Your task to perform on an android device: open app "Duolingo: language lessons" (install if not already installed) Image 0: 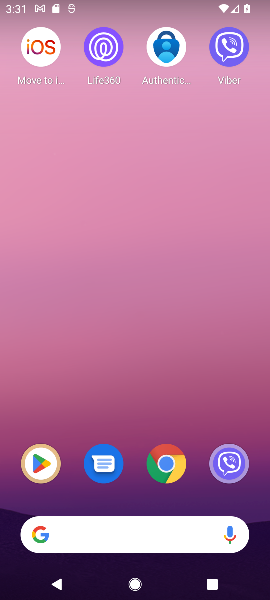
Step 0: press home button
Your task to perform on an android device: open app "Duolingo: language lessons" (install if not already installed) Image 1: 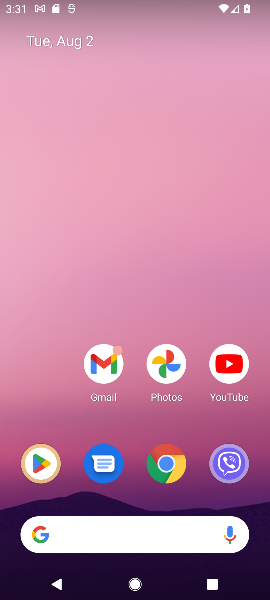
Step 1: click (40, 461)
Your task to perform on an android device: open app "Duolingo: language lessons" (install if not already installed) Image 2: 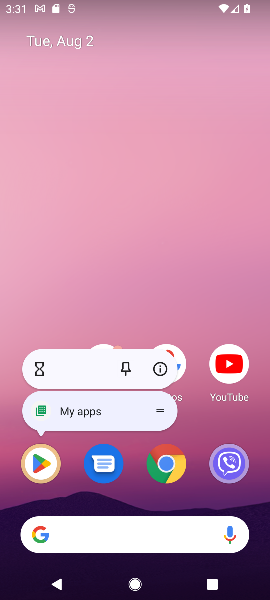
Step 2: click (40, 462)
Your task to perform on an android device: open app "Duolingo: language lessons" (install if not already installed) Image 3: 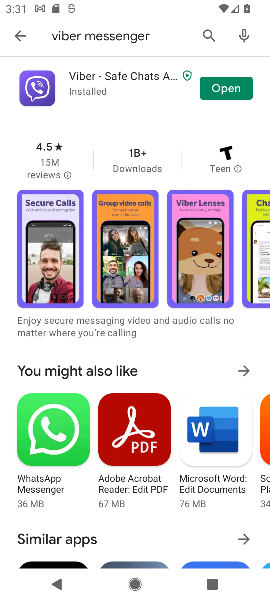
Step 3: click (208, 38)
Your task to perform on an android device: open app "Duolingo: language lessons" (install if not already installed) Image 4: 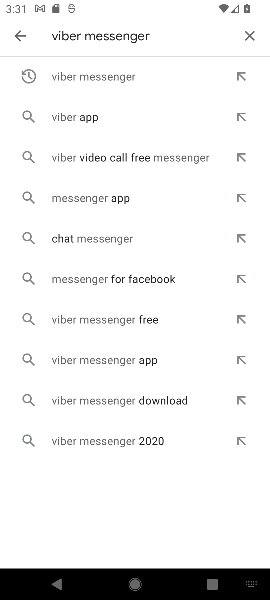
Step 4: click (249, 33)
Your task to perform on an android device: open app "Duolingo: language lessons" (install if not already installed) Image 5: 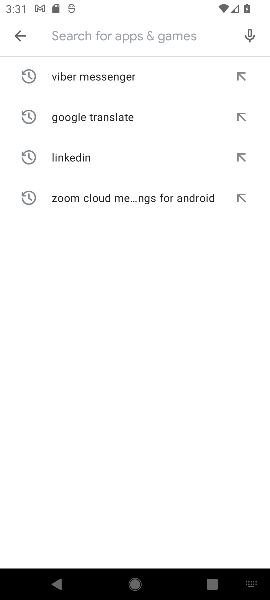
Step 5: type "Duolingo: language lessons"
Your task to perform on an android device: open app "Duolingo: language lessons" (install if not already installed) Image 6: 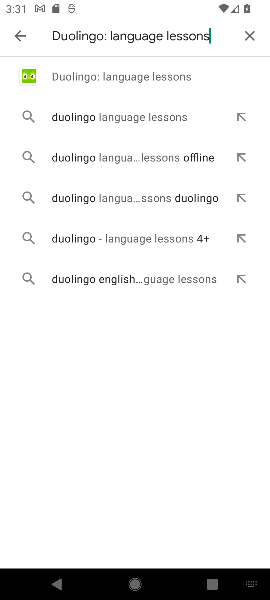
Step 6: click (113, 81)
Your task to perform on an android device: open app "Duolingo: language lessons" (install if not already installed) Image 7: 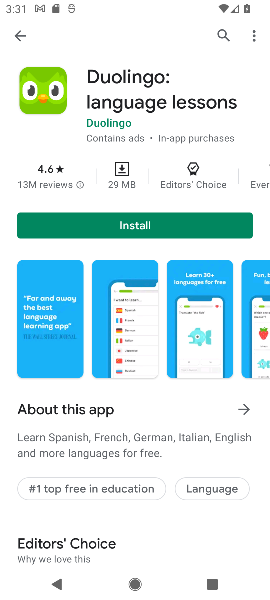
Step 7: click (135, 219)
Your task to perform on an android device: open app "Duolingo: language lessons" (install if not already installed) Image 8: 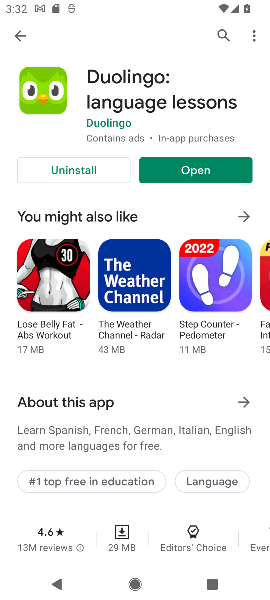
Step 8: click (202, 172)
Your task to perform on an android device: open app "Duolingo: language lessons" (install if not already installed) Image 9: 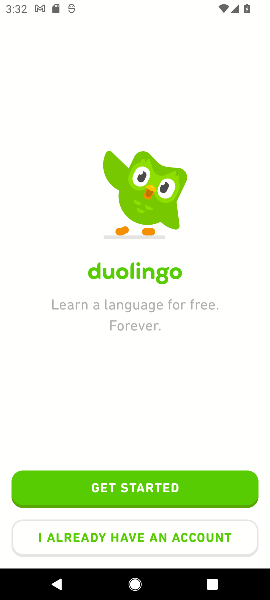
Step 9: task complete